Your task to perform on an android device: Open Chrome and go to settings Image 0: 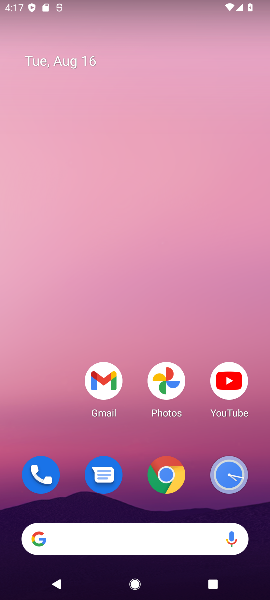
Step 0: drag from (45, 402) to (43, 5)
Your task to perform on an android device: Open Chrome and go to settings Image 1: 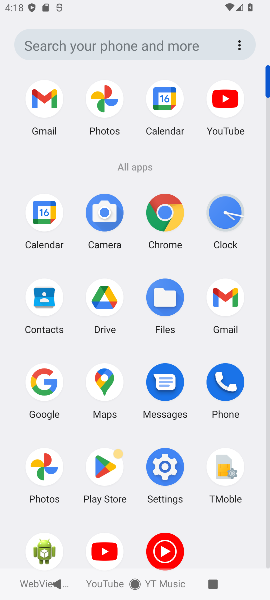
Step 1: click (165, 220)
Your task to perform on an android device: Open Chrome and go to settings Image 2: 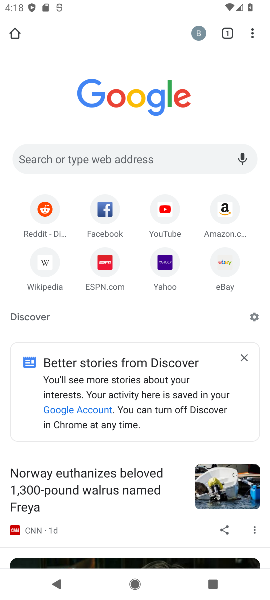
Step 2: click (250, 32)
Your task to perform on an android device: Open Chrome and go to settings Image 3: 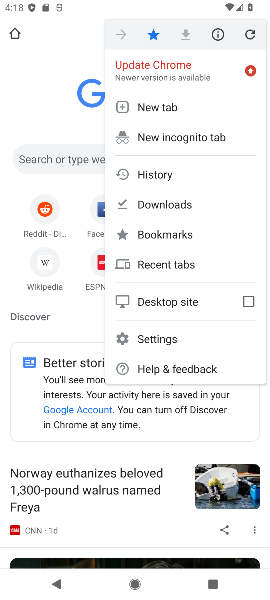
Step 3: click (166, 340)
Your task to perform on an android device: Open Chrome and go to settings Image 4: 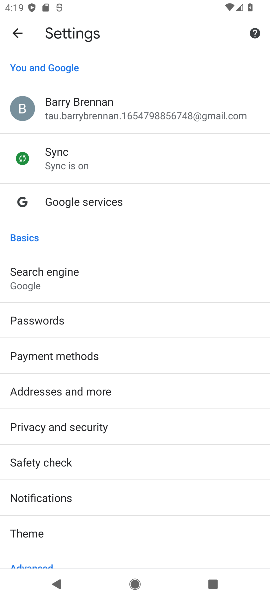
Step 4: task complete